Your task to perform on an android device: Open display settings Image 0: 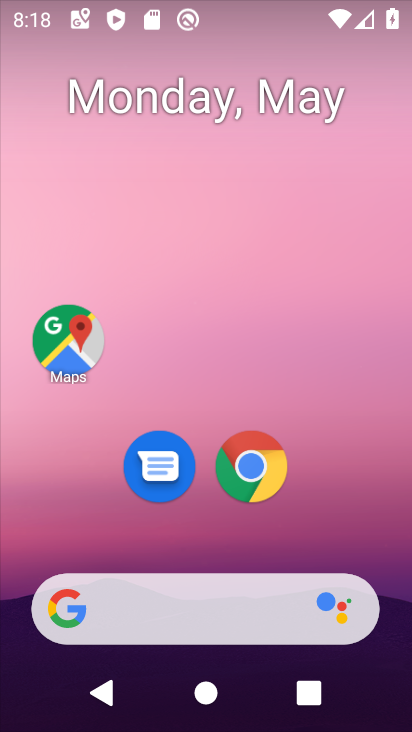
Step 0: drag from (266, 650) to (299, 222)
Your task to perform on an android device: Open display settings Image 1: 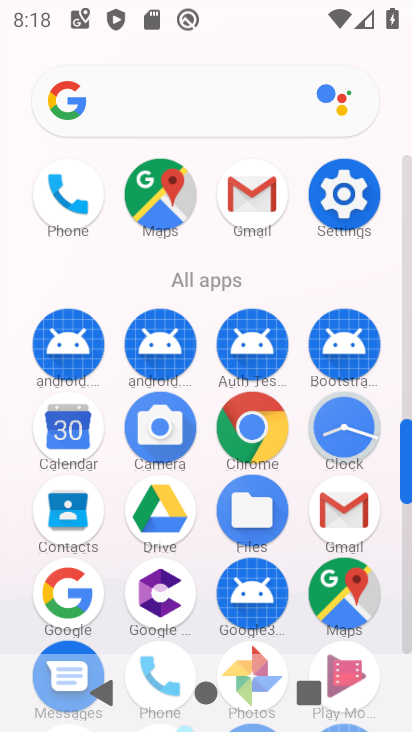
Step 1: click (342, 205)
Your task to perform on an android device: Open display settings Image 2: 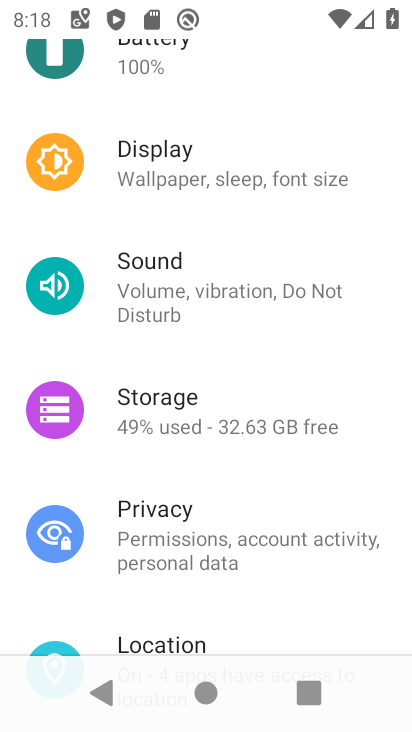
Step 2: click (161, 178)
Your task to perform on an android device: Open display settings Image 3: 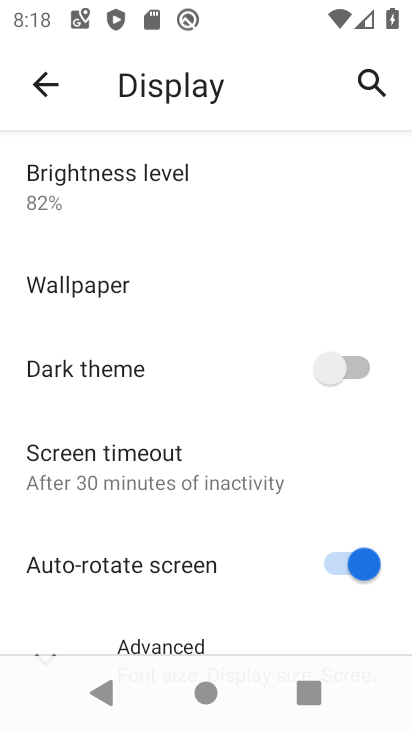
Step 3: task complete